Your task to perform on an android device: change your default location settings in chrome Image 0: 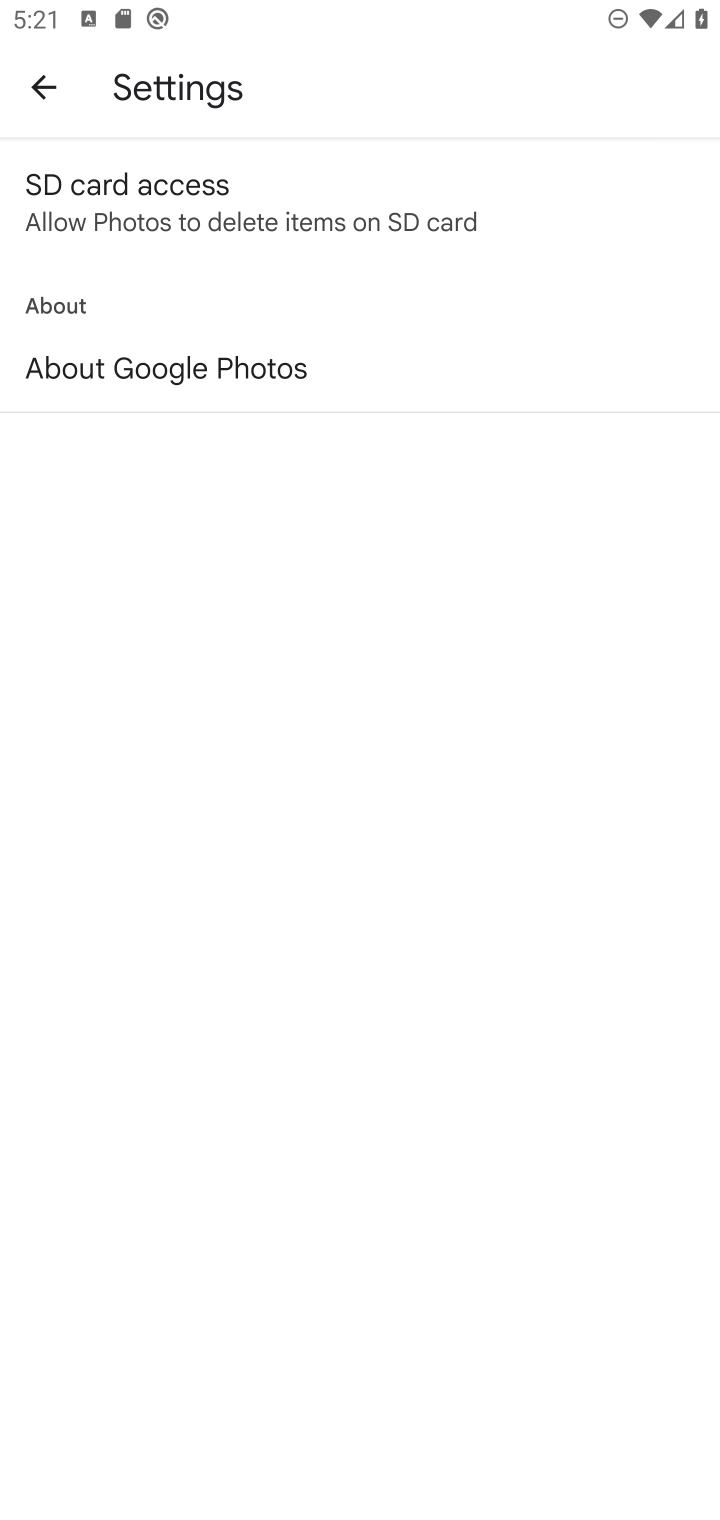
Step 0: press home button
Your task to perform on an android device: change your default location settings in chrome Image 1: 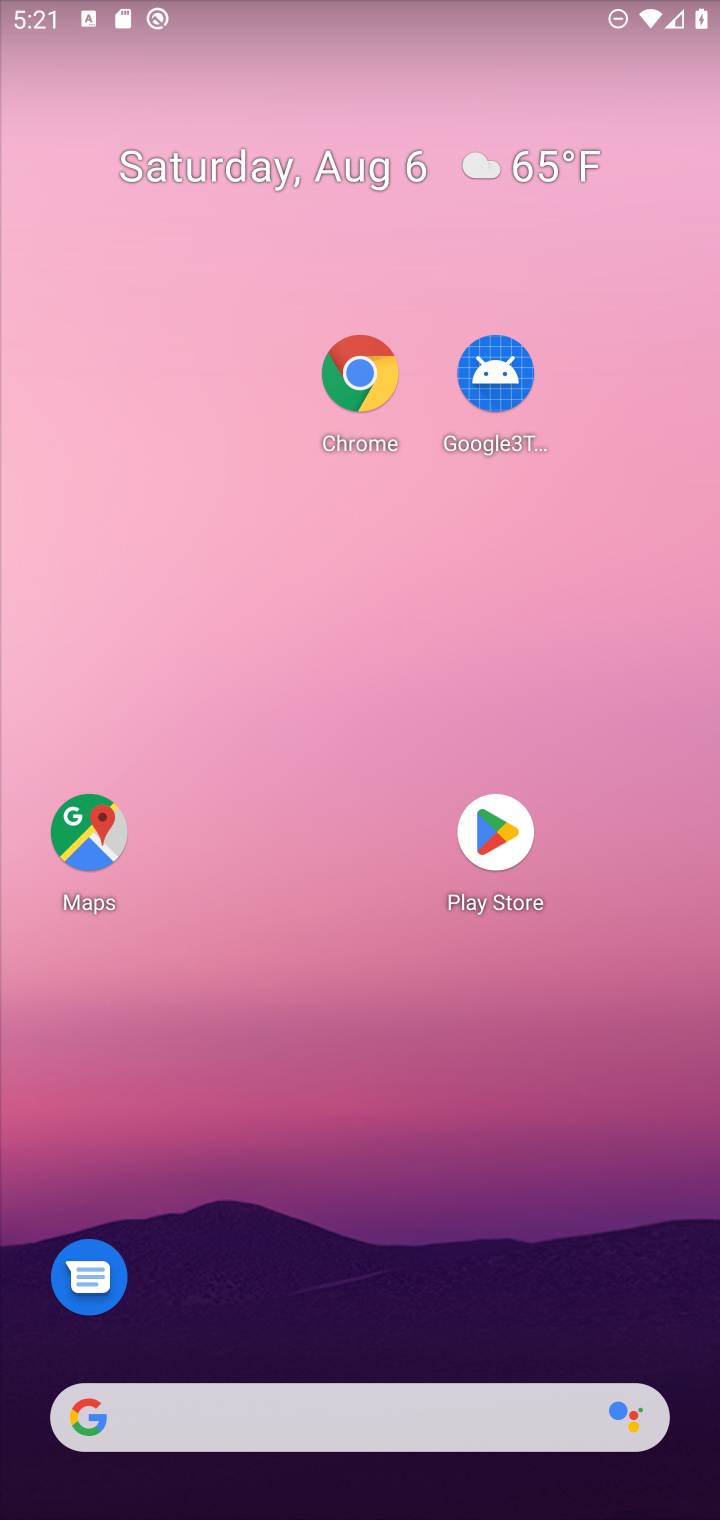
Step 1: drag from (497, 1419) to (607, 28)
Your task to perform on an android device: change your default location settings in chrome Image 2: 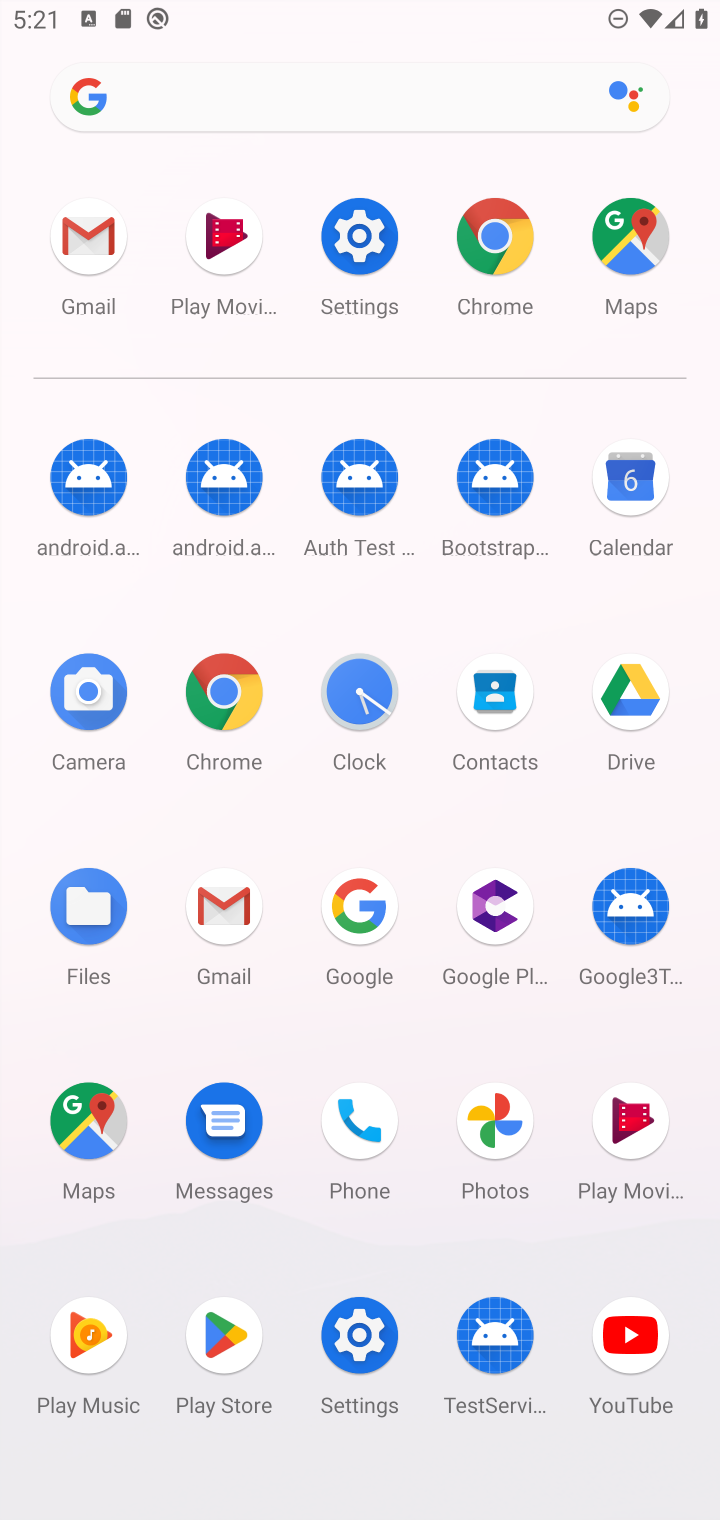
Step 2: click (225, 691)
Your task to perform on an android device: change your default location settings in chrome Image 3: 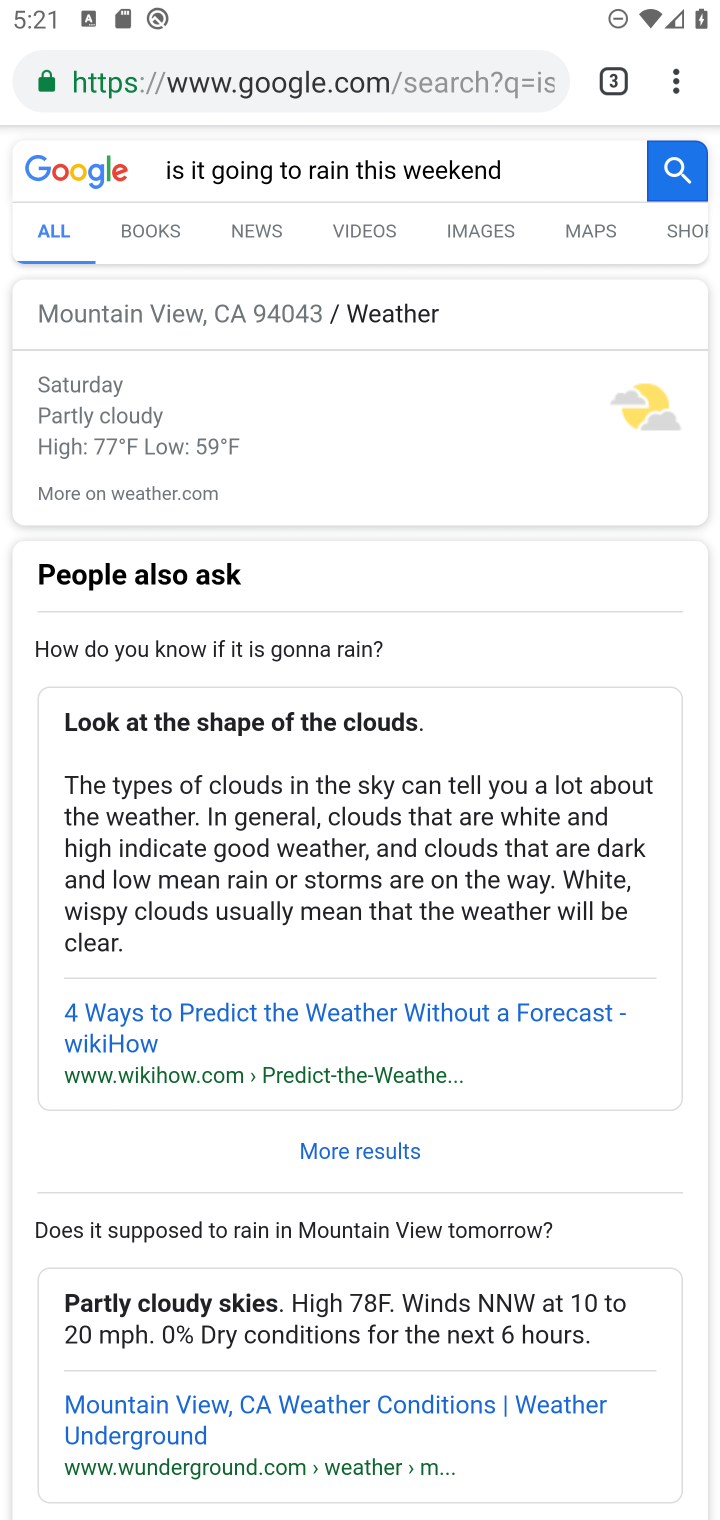
Step 3: click (678, 78)
Your task to perform on an android device: change your default location settings in chrome Image 4: 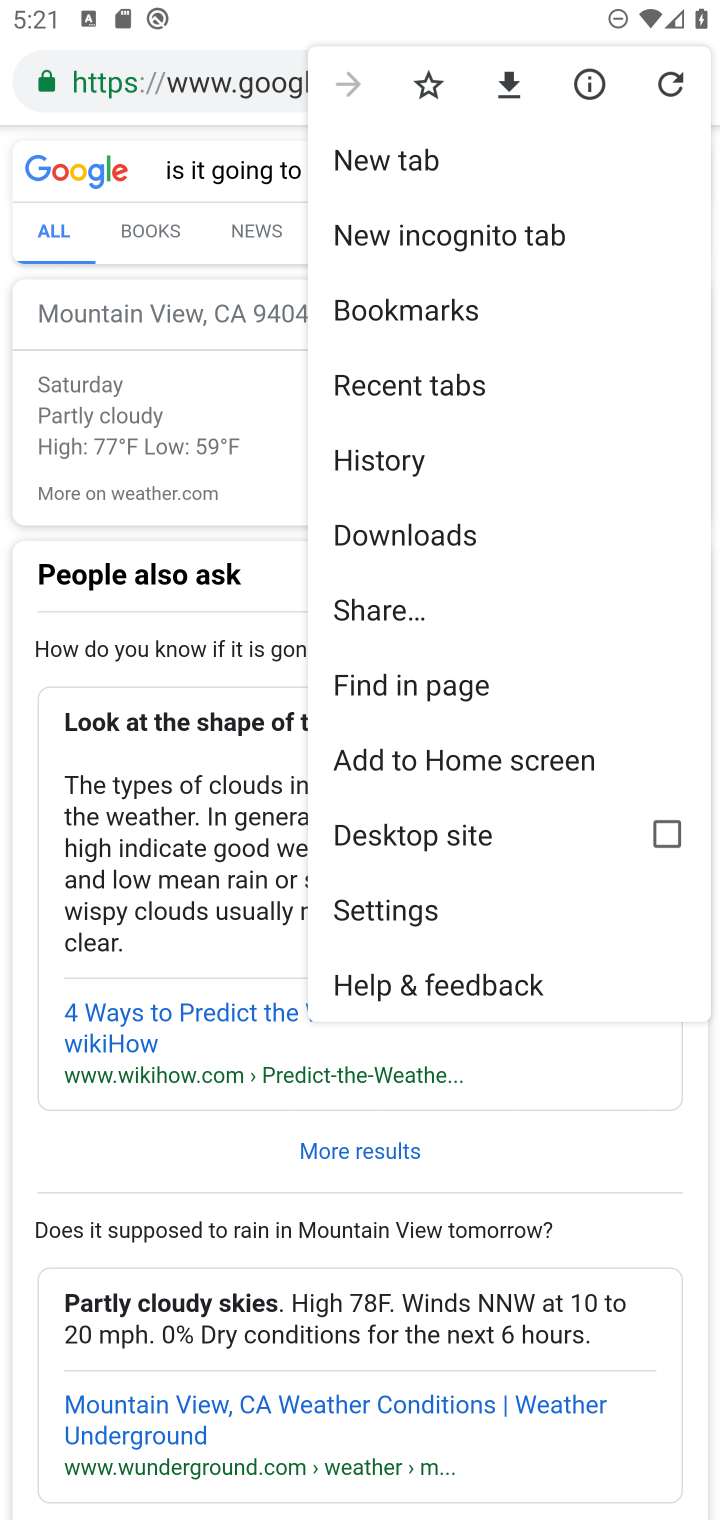
Step 4: click (369, 913)
Your task to perform on an android device: change your default location settings in chrome Image 5: 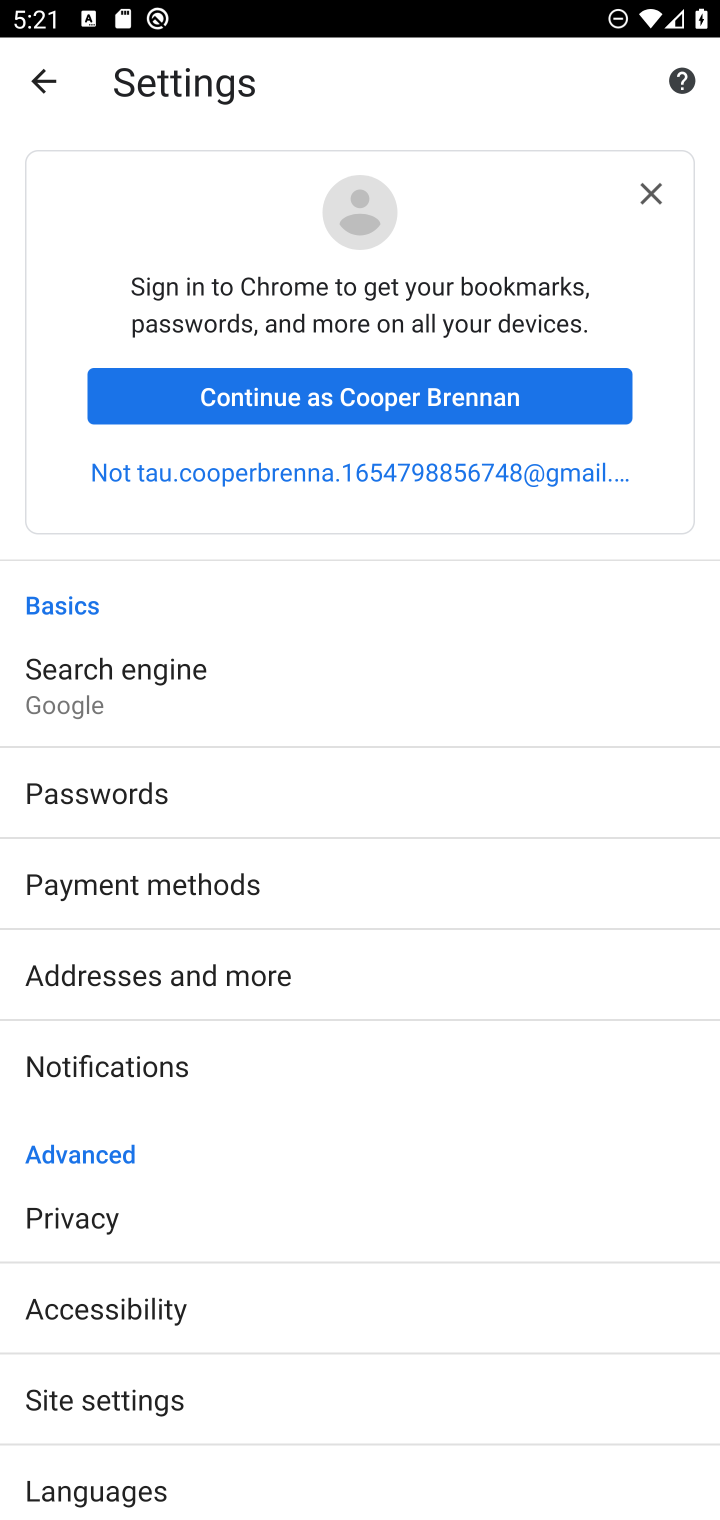
Step 5: click (211, 1385)
Your task to perform on an android device: change your default location settings in chrome Image 6: 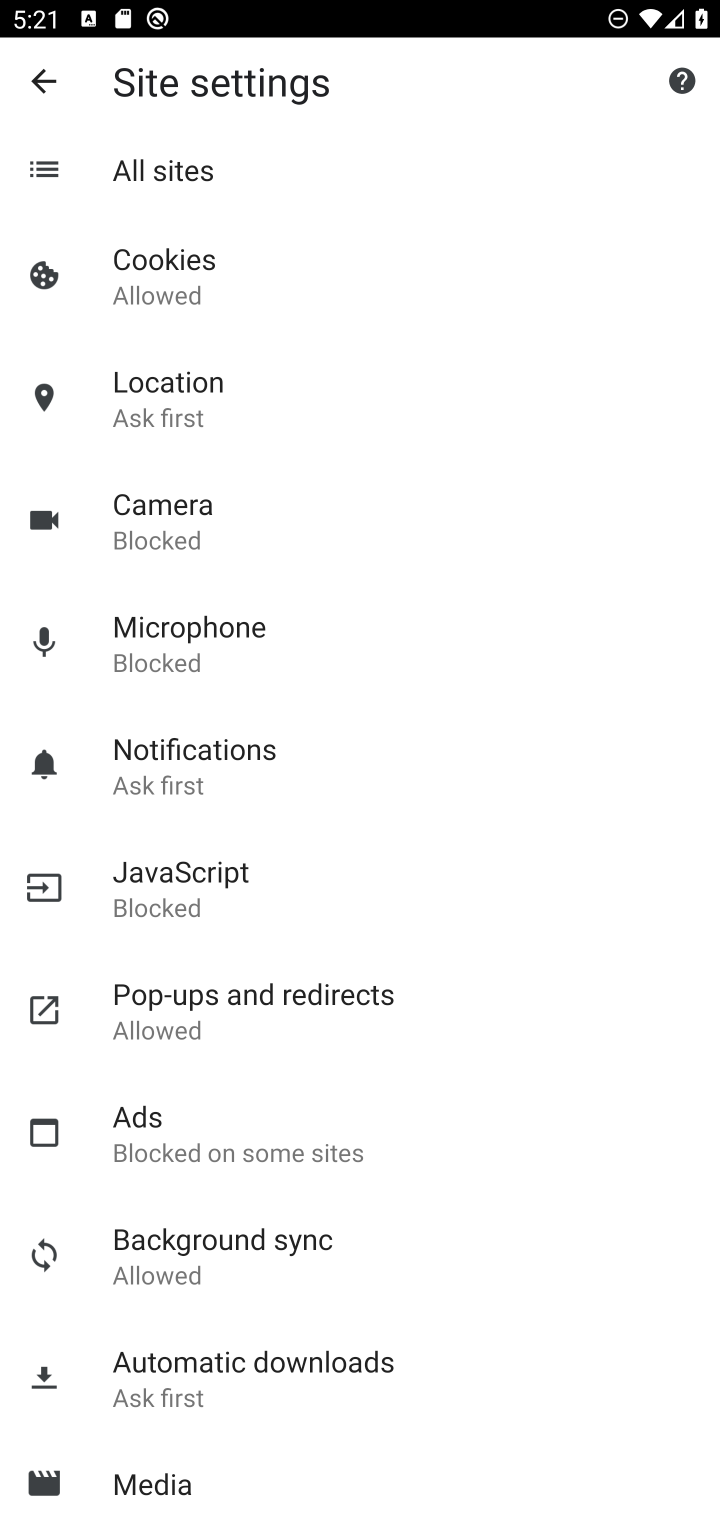
Step 6: click (208, 392)
Your task to perform on an android device: change your default location settings in chrome Image 7: 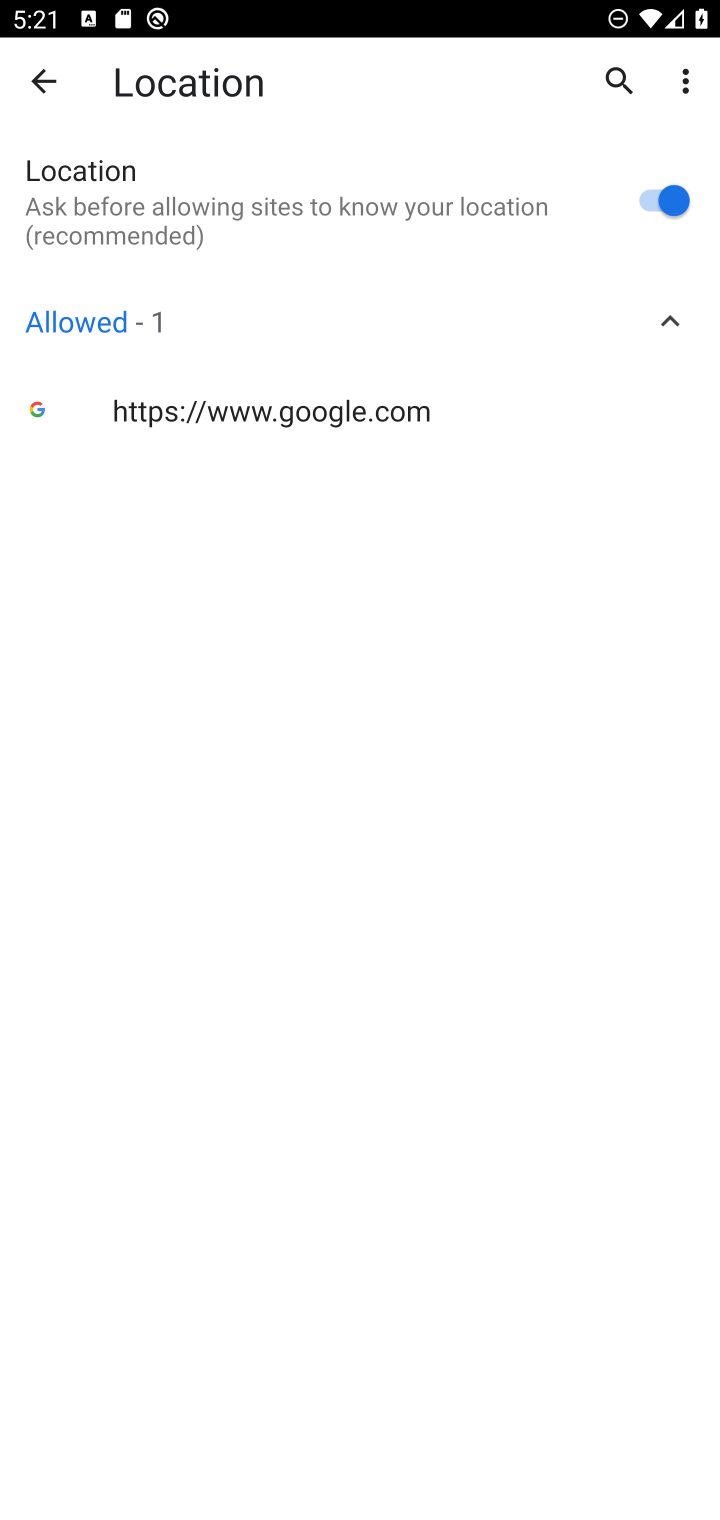
Step 7: click (647, 191)
Your task to perform on an android device: change your default location settings in chrome Image 8: 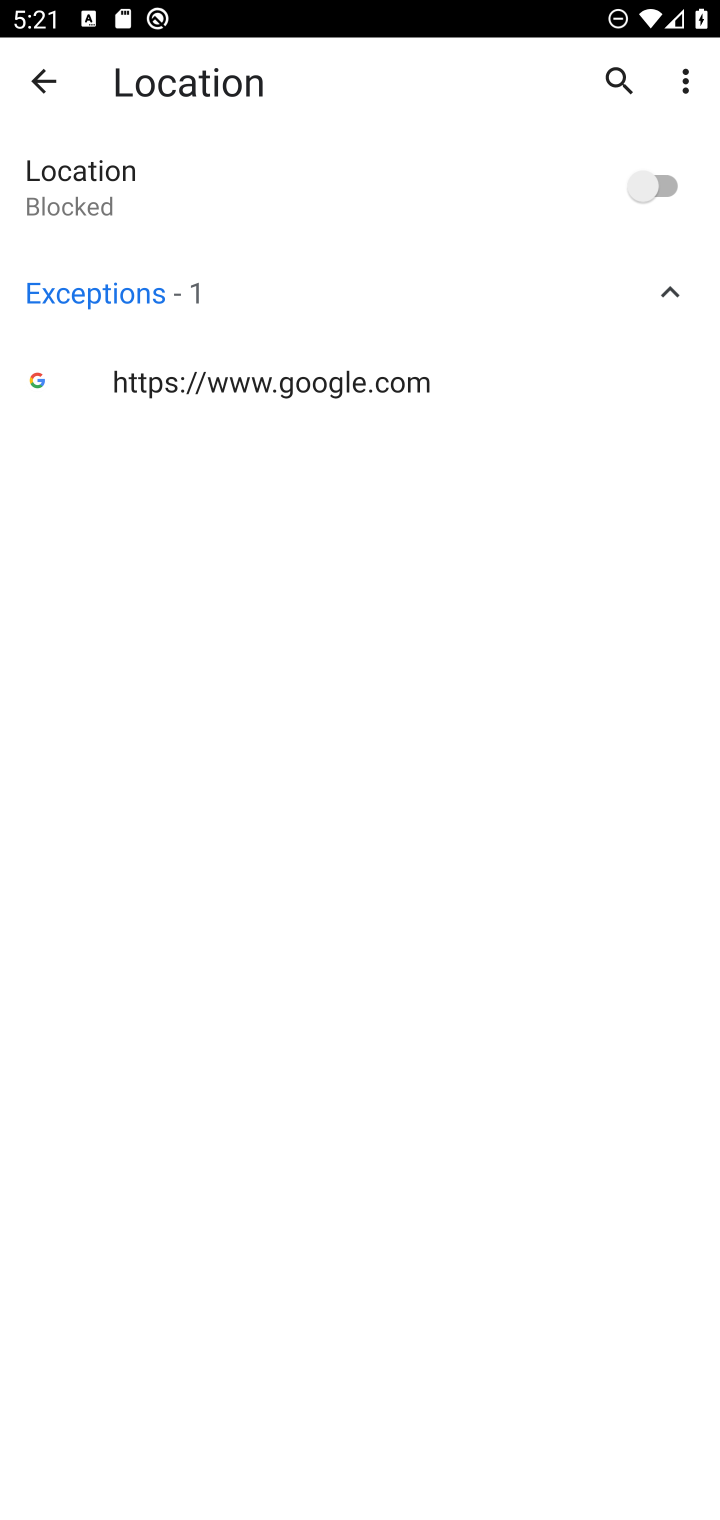
Step 8: task complete